Your task to perform on an android device: open a new tab in the chrome app Image 0: 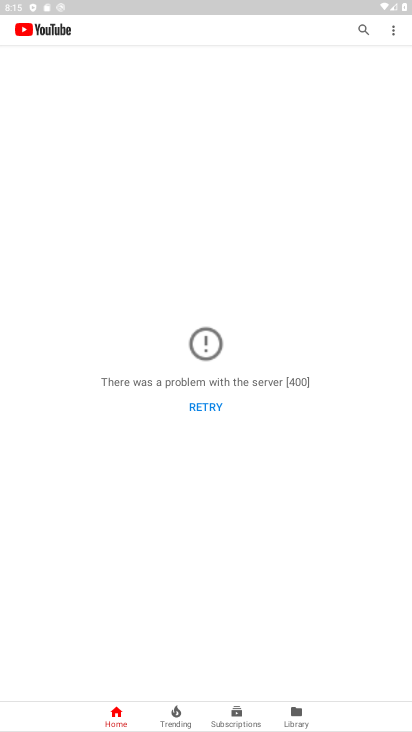
Step 0: press home button
Your task to perform on an android device: open a new tab in the chrome app Image 1: 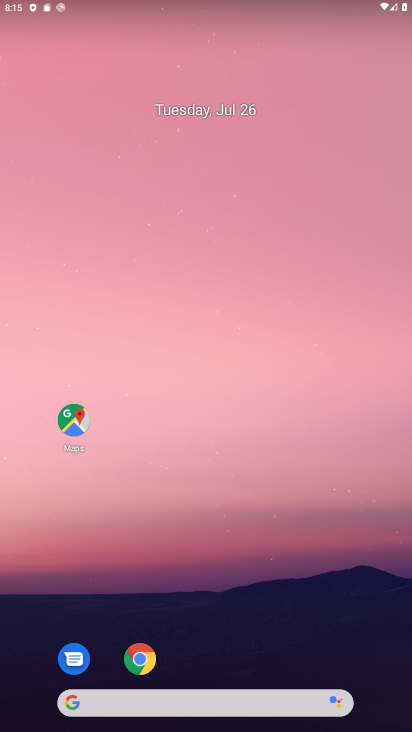
Step 1: click (134, 662)
Your task to perform on an android device: open a new tab in the chrome app Image 2: 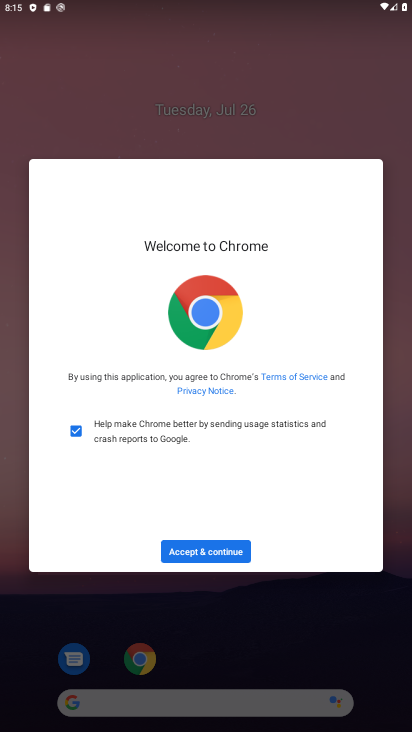
Step 2: click (197, 555)
Your task to perform on an android device: open a new tab in the chrome app Image 3: 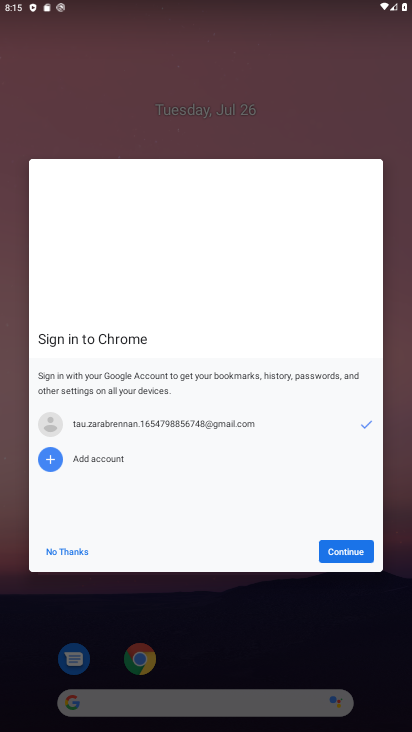
Step 3: click (341, 549)
Your task to perform on an android device: open a new tab in the chrome app Image 4: 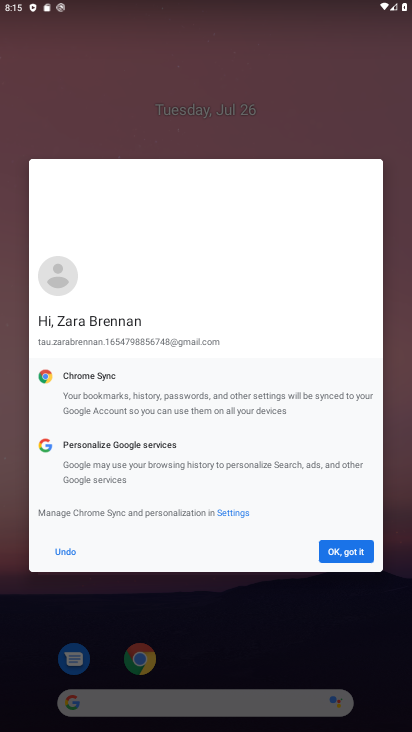
Step 4: click (341, 549)
Your task to perform on an android device: open a new tab in the chrome app Image 5: 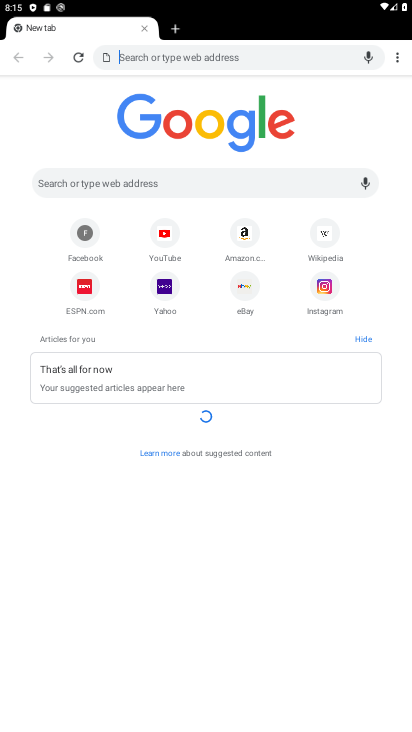
Step 5: click (399, 58)
Your task to perform on an android device: open a new tab in the chrome app Image 6: 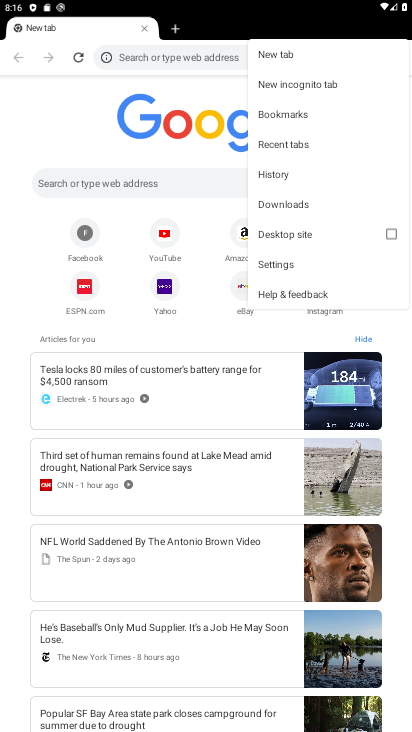
Step 6: click (311, 50)
Your task to perform on an android device: open a new tab in the chrome app Image 7: 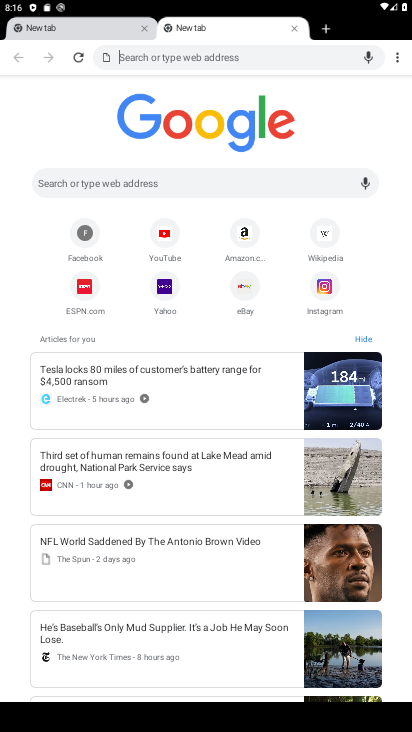
Step 7: task complete